Your task to perform on an android device: Open maps Image 0: 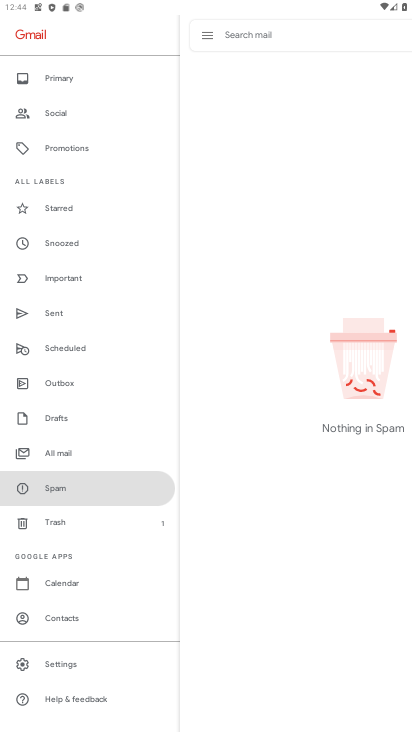
Step 0: press home button
Your task to perform on an android device: Open maps Image 1: 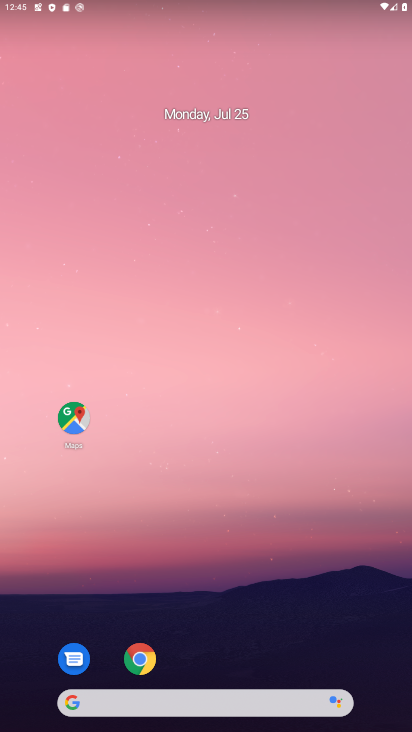
Step 1: drag from (289, 529) to (410, 160)
Your task to perform on an android device: Open maps Image 2: 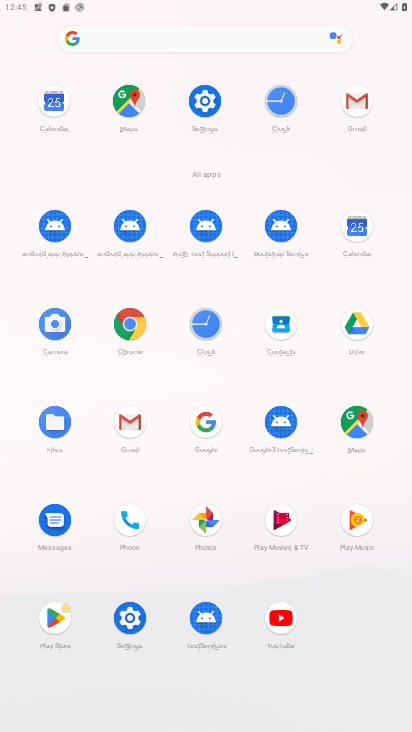
Step 2: click (354, 440)
Your task to perform on an android device: Open maps Image 3: 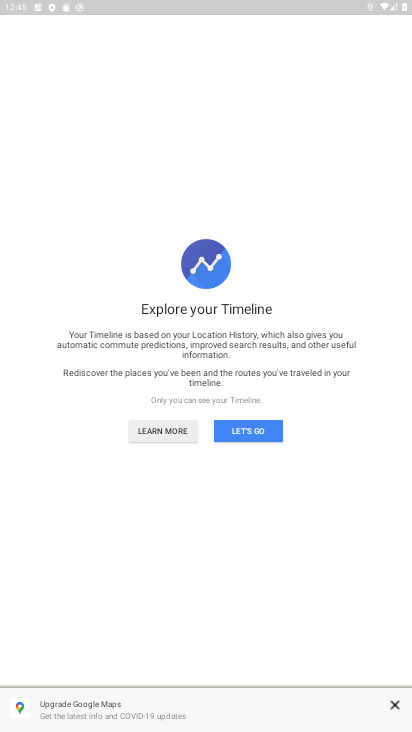
Step 3: task complete